Your task to perform on an android device: turn off smart reply in the gmail app Image 0: 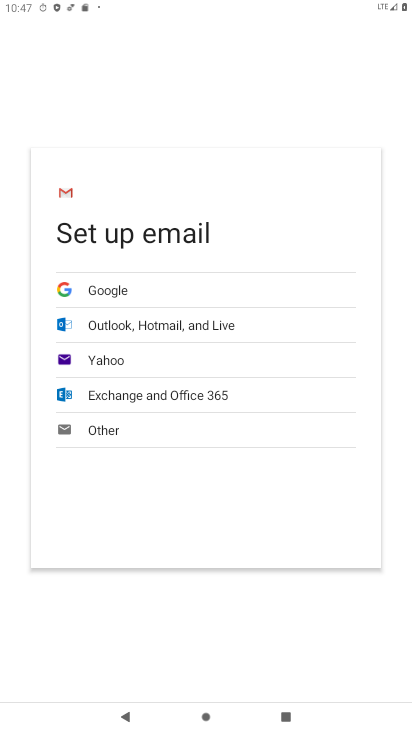
Step 0: press back button
Your task to perform on an android device: turn off smart reply in the gmail app Image 1: 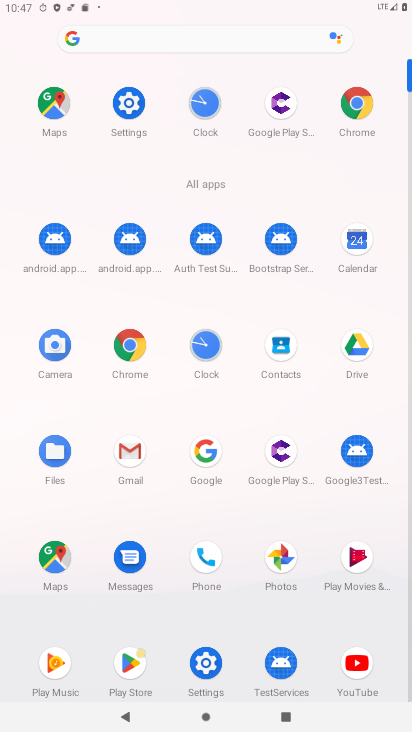
Step 1: press back button
Your task to perform on an android device: turn off smart reply in the gmail app Image 2: 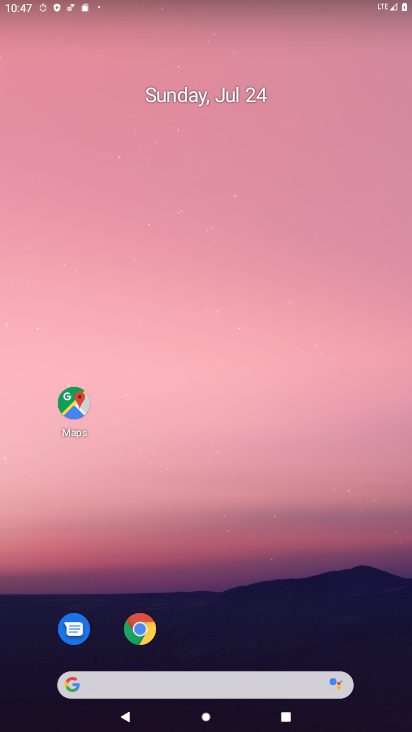
Step 2: drag from (235, 663) to (221, 98)
Your task to perform on an android device: turn off smart reply in the gmail app Image 3: 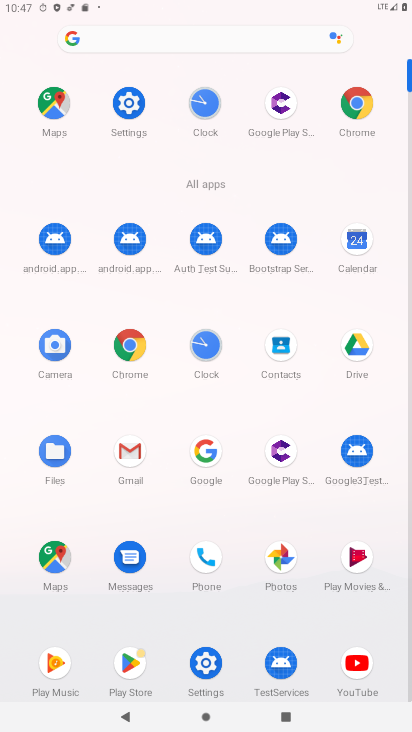
Step 3: click (137, 452)
Your task to perform on an android device: turn off smart reply in the gmail app Image 4: 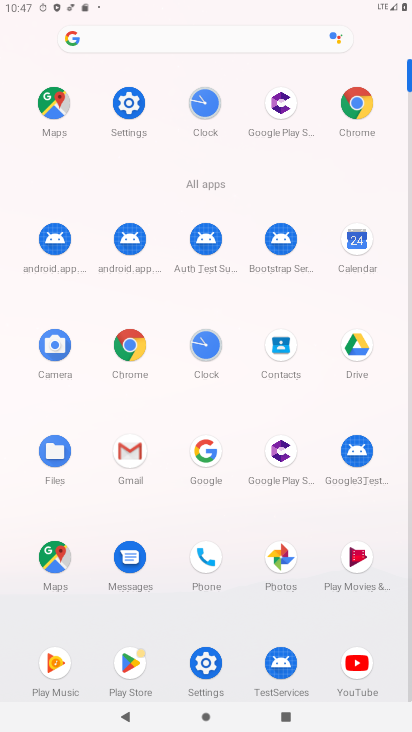
Step 4: click (131, 450)
Your task to perform on an android device: turn off smart reply in the gmail app Image 5: 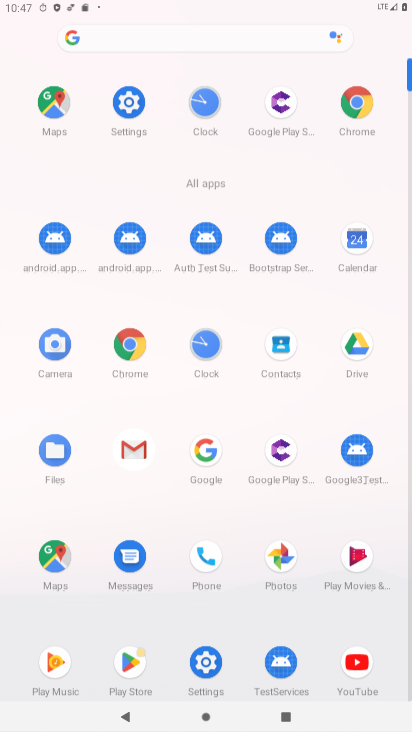
Step 5: click (132, 451)
Your task to perform on an android device: turn off smart reply in the gmail app Image 6: 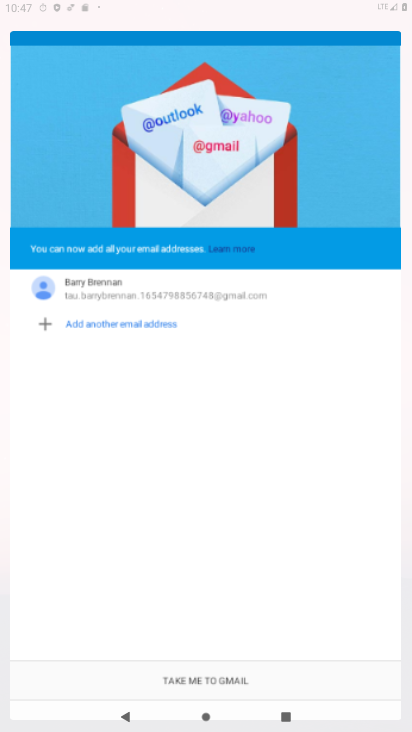
Step 6: click (131, 452)
Your task to perform on an android device: turn off smart reply in the gmail app Image 7: 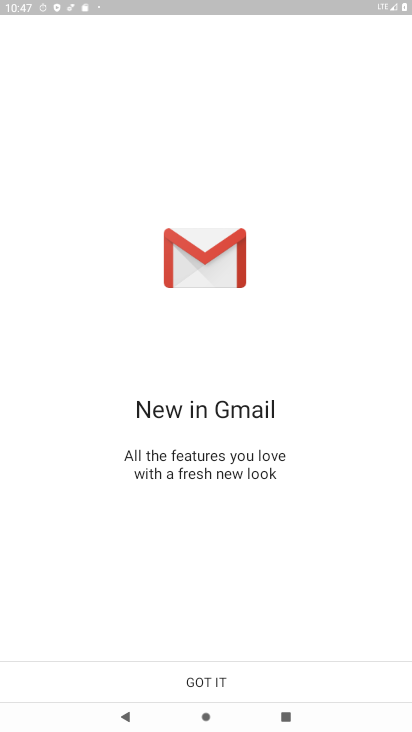
Step 7: click (209, 662)
Your task to perform on an android device: turn off smart reply in the gmail app Image 8: 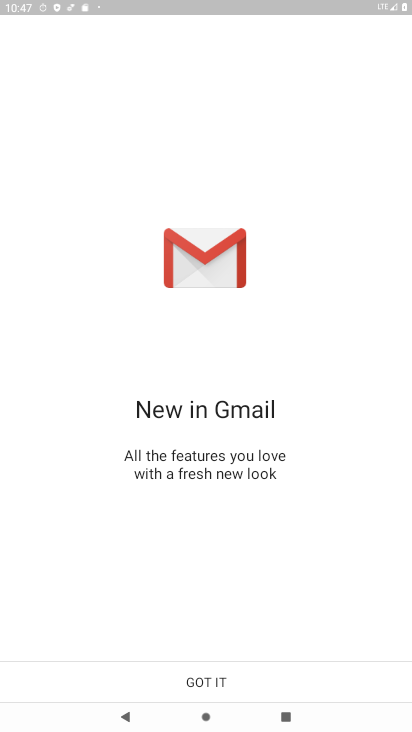
Step 8: click (214, 671)
Your task to perform on an android device: turn off smart reply in the gmail app Image 9: 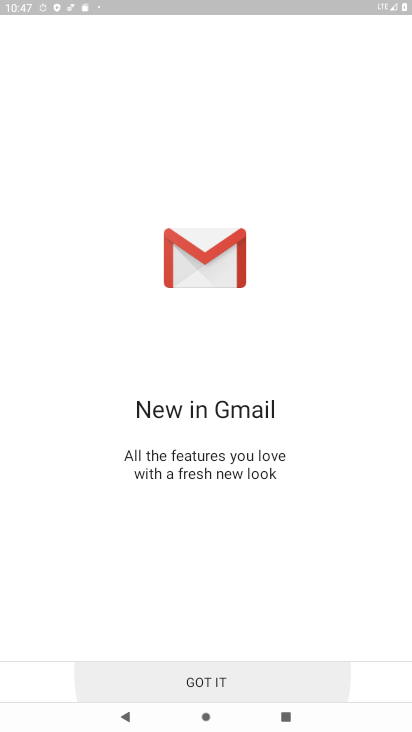
Step 9: click (213, 674)
Your task to perform on an android device: turn off smart reply in the gmail app Image 10: 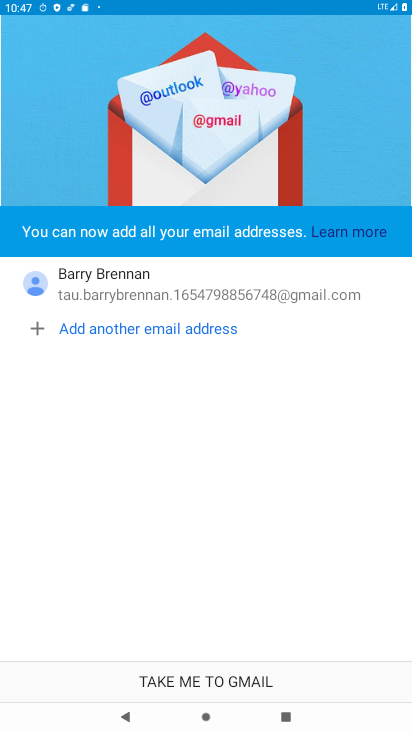
Step 10: click (210, 673)
Your task to perform on an android device: turn off smart reply in the gmail app Image 11: 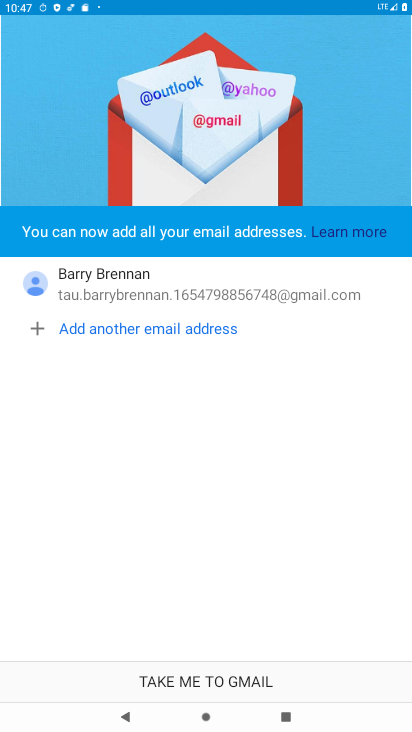
Step 11: click (211, 679)
Your task to perform on an android device: turn off smart reply in the gmail app Image 12: 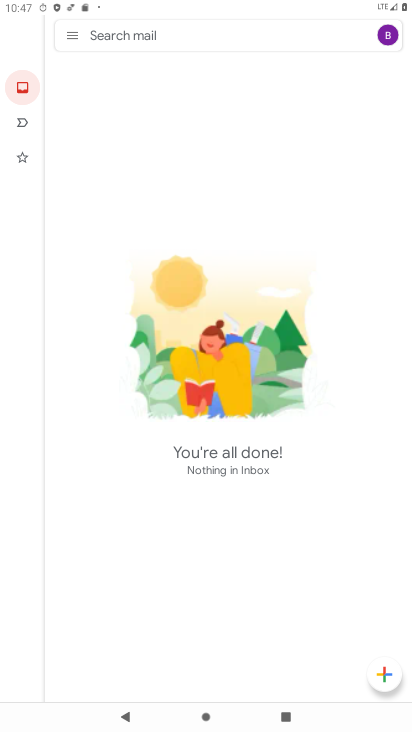
Step 12: click (67, 46)
Your task to perform on an android device: turn off smart reply in the gmail app Image 13: 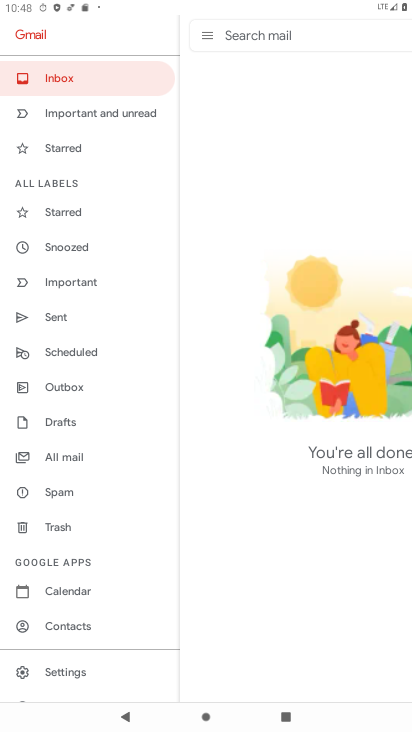
Step 13: click (64, 673)
Your task to perform on an android device: turn off smart reply in the gmail app Image 14: 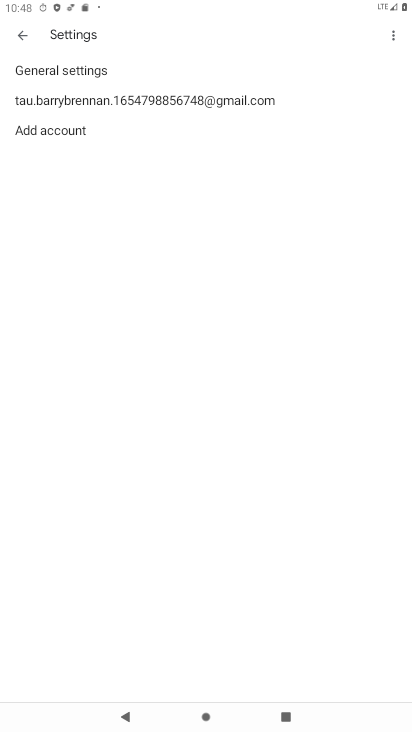
Step 14: click (89, 96)
Your task to perform on an android device: turn off smart reply in the gmail app Image 15: 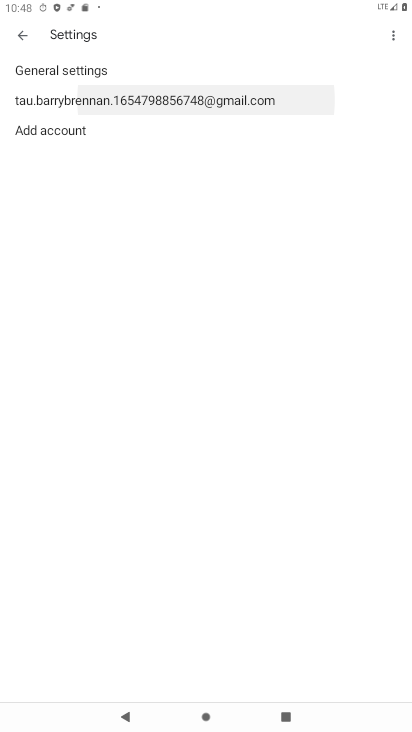
Step 15: click (93, 101)
Your task to perform on an android device: turn off smart reply in the gmail app Image 16: 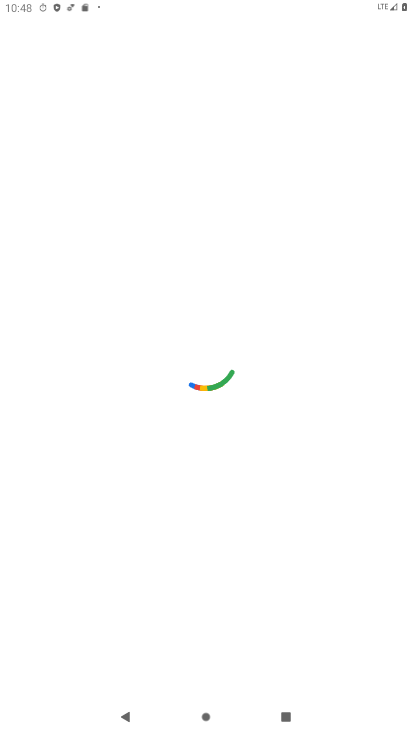
Step 16: press back button
Your task to perform on an android device: turn off smart reply in the gmail app Image 17: 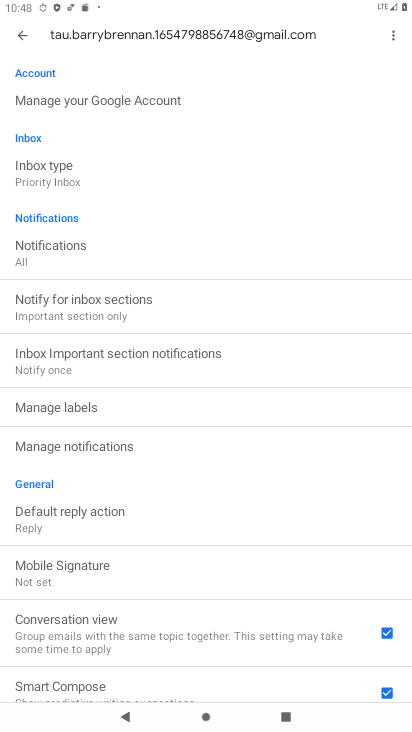
Step 17: drag from (54, 417) to (13, 69)
Your task to perform on an android device: turn off smart reply in the gmail app Image 18: 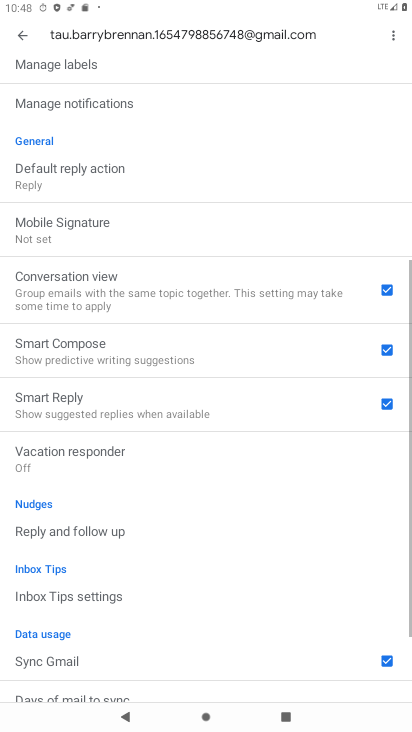
Step 18: drag from (211, 475) to (151, 187)
Your task to perform on an android device: turn off smart reply in the gmail app Image 19: 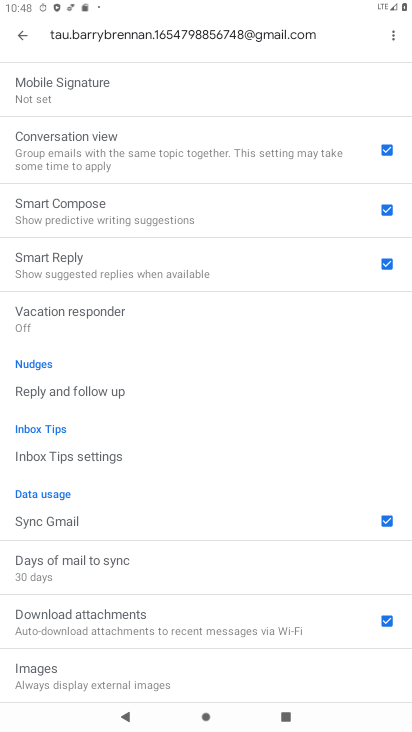
Step 19: click (382, 264)
Your task to perform on an android device: turn off smart reply in the gmail app Image 20: 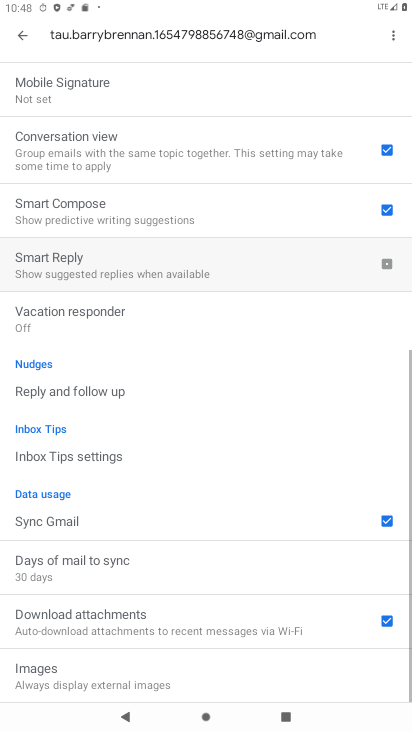
Step 20: click (379, 265)
Your task to perform on an android device: turn off smart reply in the gmail app Image 21: 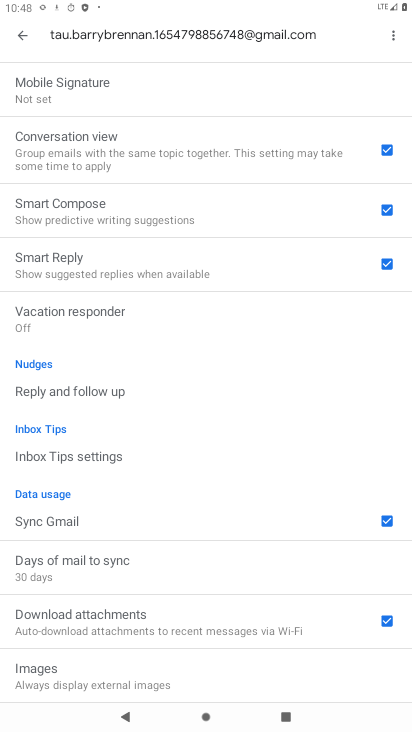
Step 21: click (383, 264)
Your task to perform on an android device: turn off smart reply in the gmail app Image 22: 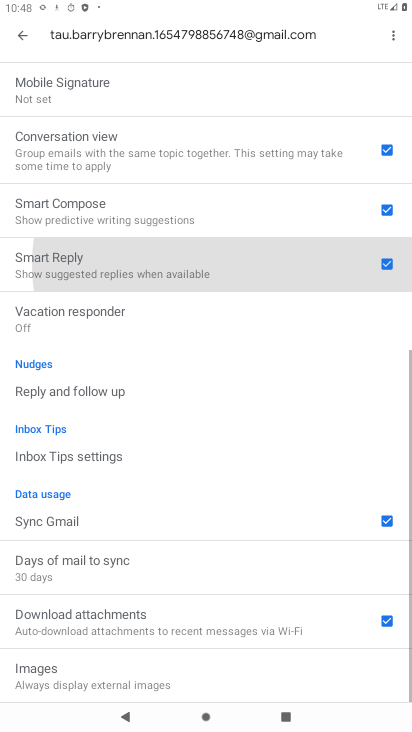
Step 22: click (381, 259)
Your task to perform on an android device: turn off smart reply in the gmail app Image 23: 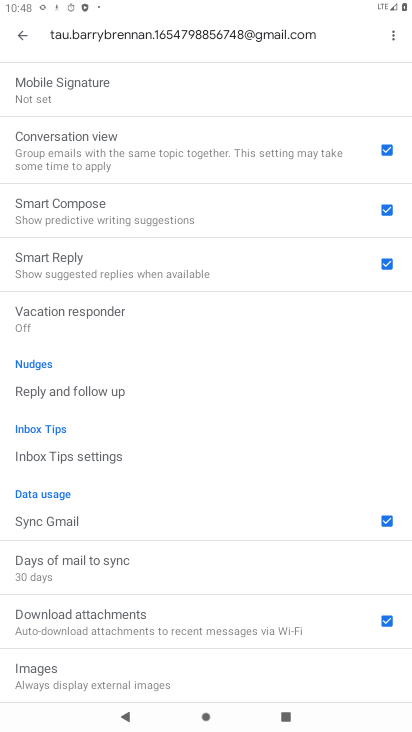
Step 23: click (388, 253)
Your task to perform on an android device: turn off smart reply in the gmail app Image 24: 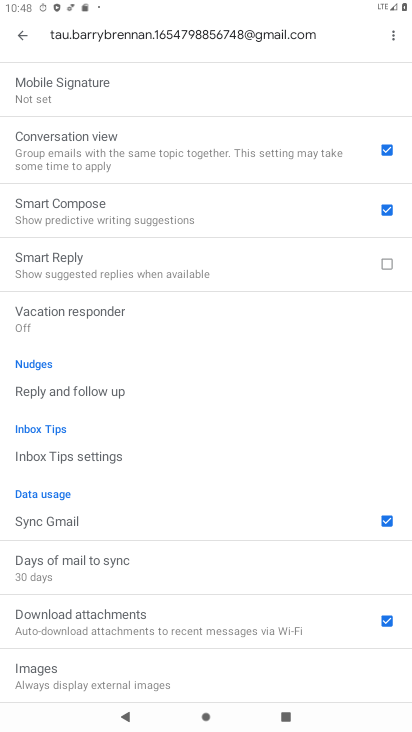
Step 24: task complete